Your task to perform on an android device: Search for Mexican restaurants on Maps Image 0: 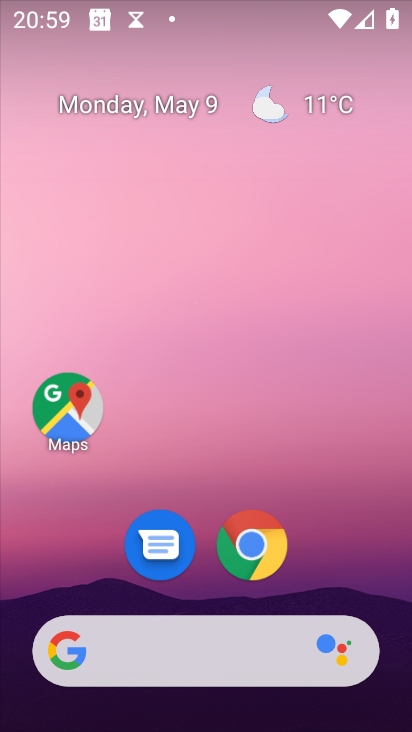
Step 0: drag from (228, 726) to (231, 212)
Your task to perform on an android device: Search for Mexican restaurants on Maps Image 1: 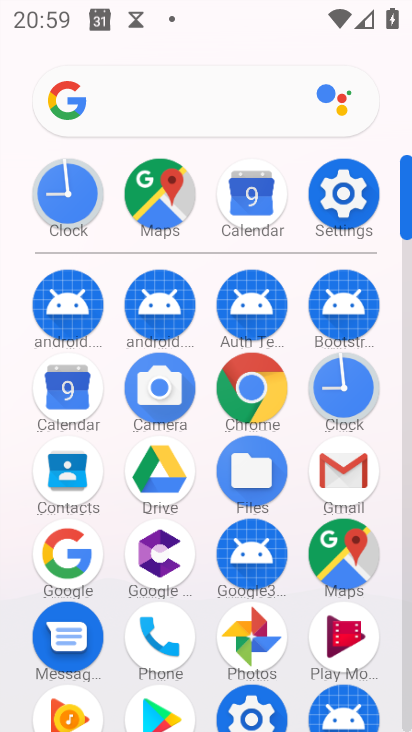
Step 1: click (339, 559)
Your task to perform on an android device: Search for Mexican restaurants on Maps Image 2: 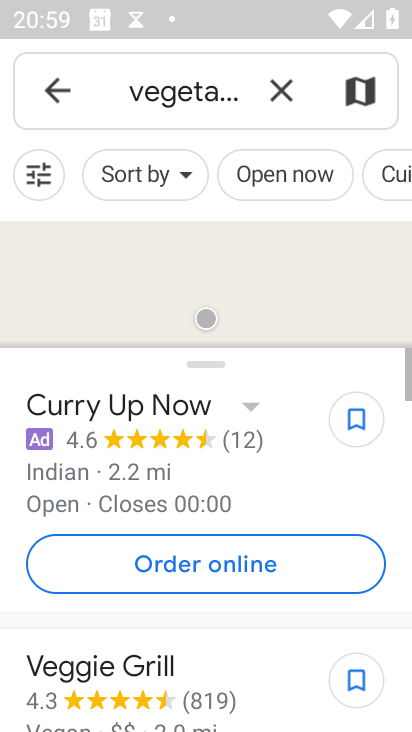
Step 2: click (285, 89)
Your task to perform on an android device: Search for Mexican restaurants on Maps Image 3: 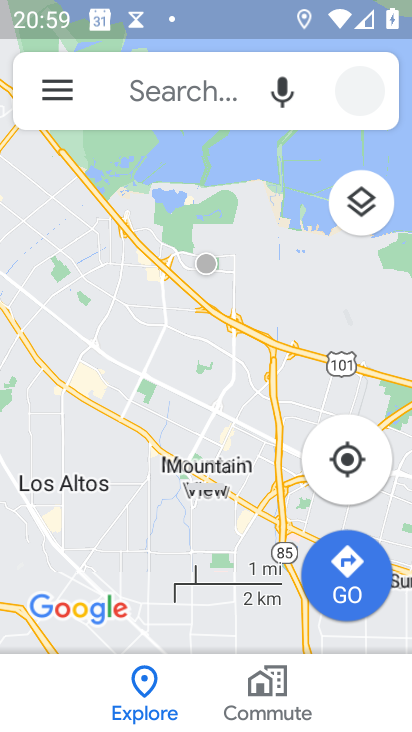
Step 3: click (191, 84)
Your task to perform on an android device: Search for Mexican restaurants on Maps Image 4: 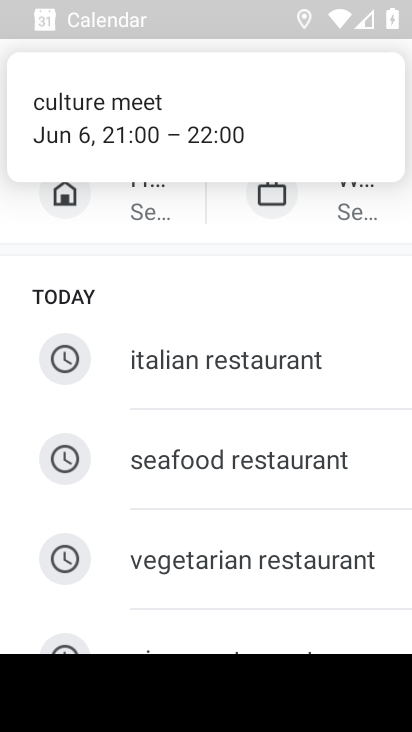
Step 4: type "Mexican restaurants"
Your task to perform on an android device: Search for Mexican restaurants on Maps Image 5: 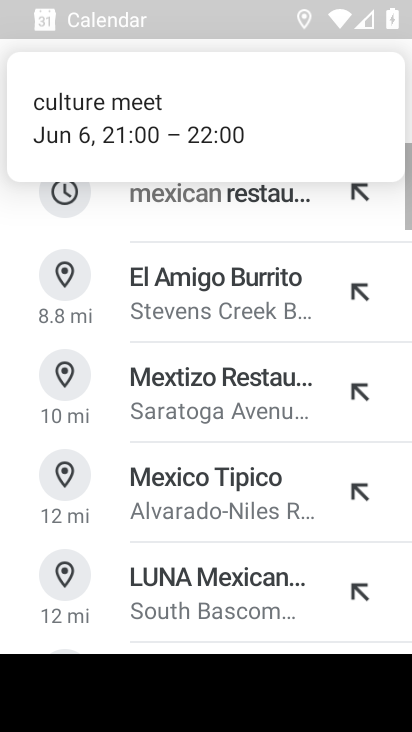
Step 5: click (198, 190)
Your task to perform on an android device: Search for Mexican restaurants on Maps Image 6: 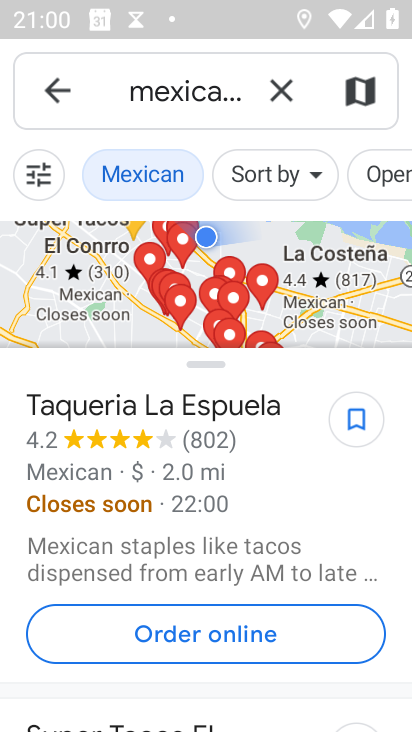
Step 6: task complete